Your task to perform on an android device: toggle location history Image 0: 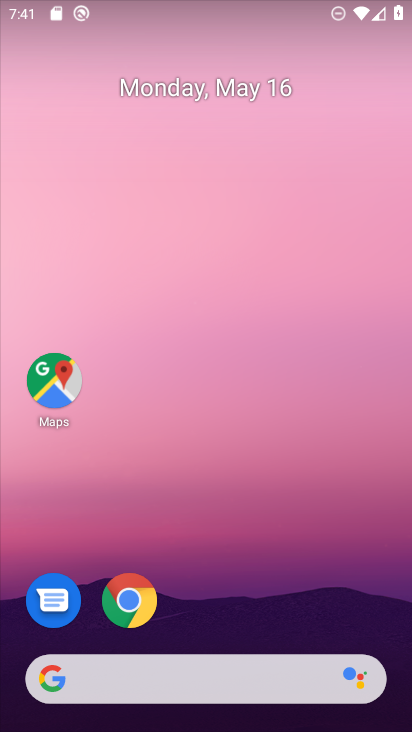
Step 0: drag from (153, 686) to (324, 194)
Your task to perform on an android device: toggle location history Image 1: 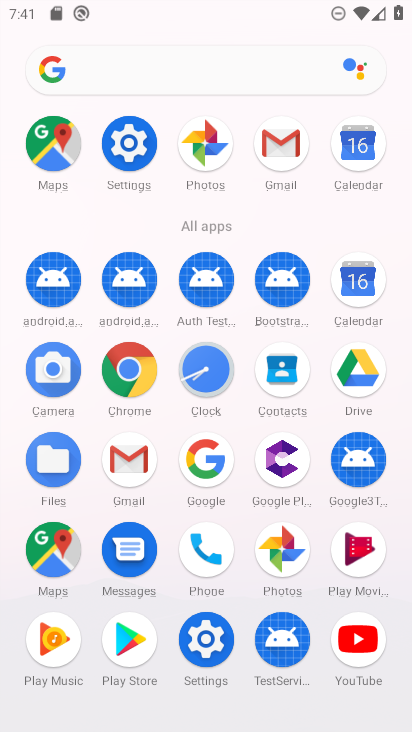
Step 1: click (130, 138)
Your task to perform on an android device: toggle location history Image 2: 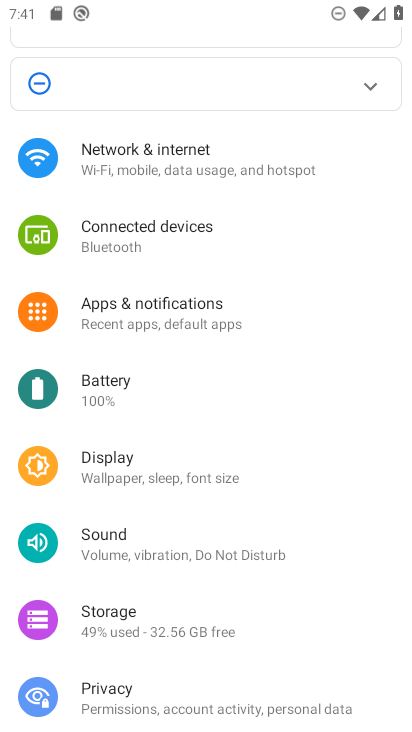
Step 2: drag from (292, 563) to (329, 123)
Your task to perform on an android device: toggle location history Image 3: 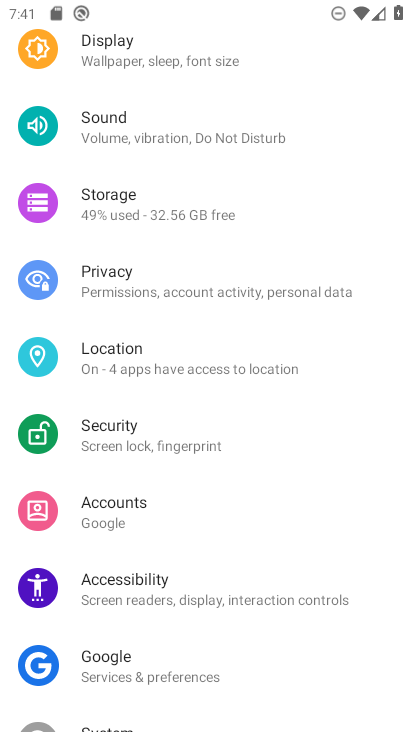
Step 3: click (148, 361)
Your task to perform on an android device: toggle location history Image 4: 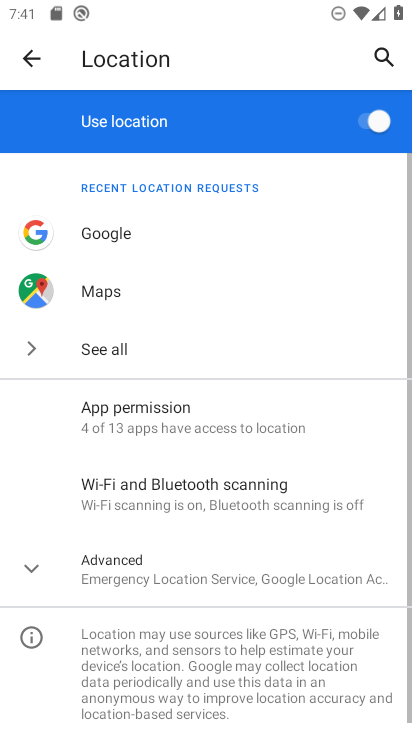
Step 4: click (102, 577)
Your task to perform on an android device: toggle location history Image 5: 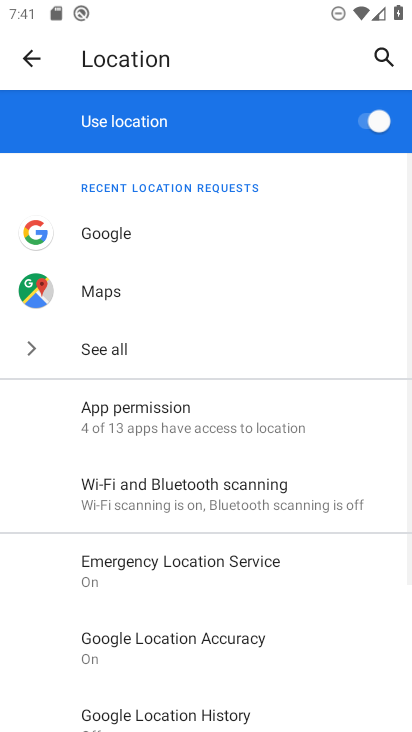
Step 5: drag from (340, 558) to (322, 258)
Your task to perform on an android device: toggle location history Image 6: 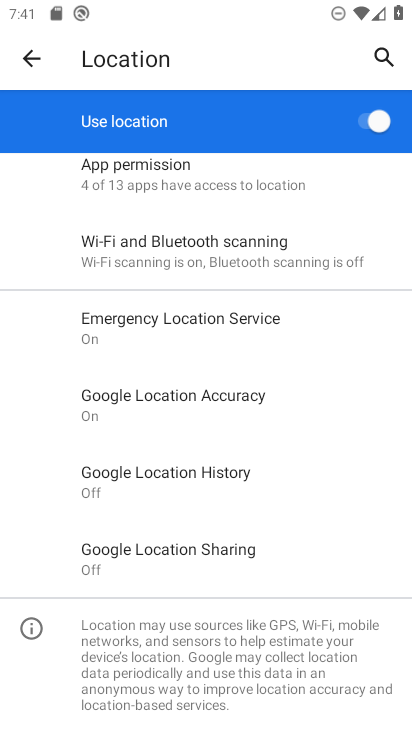
Step 6: click (201, 473)
Your task to perform on an android device: toggle location history Image 7: 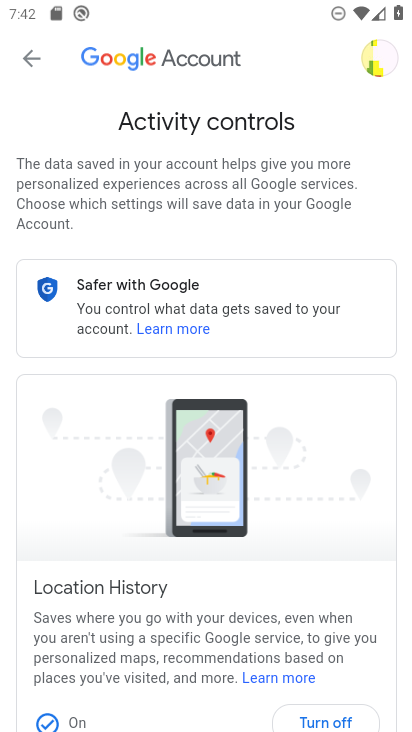
Step 7: drag from (233, 574) to (311, 252)
Your task to perform on an android device: toggle location history Image 8: 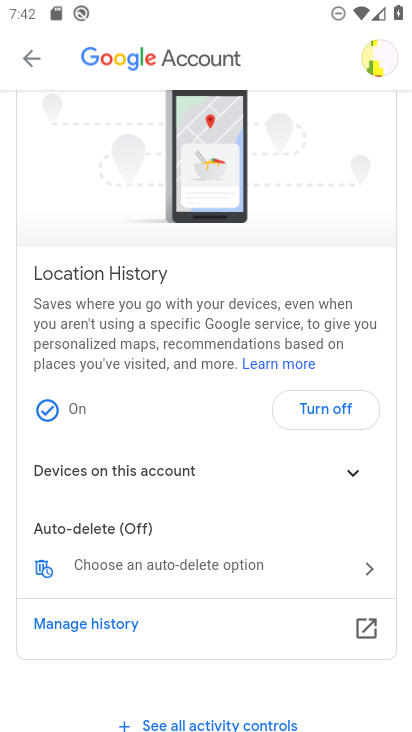
Step 8: click (331, 399)
Your task to perform on an android device: toggle location history Image 9: 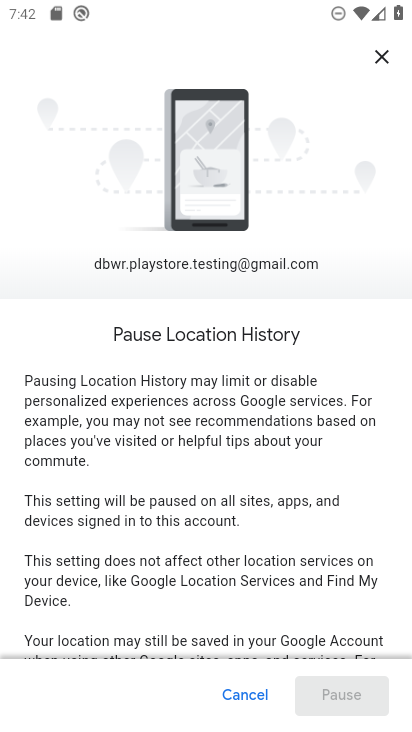
Step 9: drag from (248, 616) to (323, 302)
Your task to perform on an android device: toggle location history Image 10: 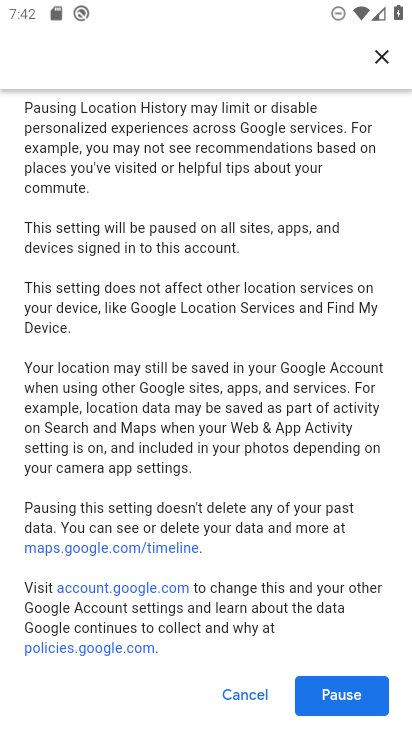
Step 10: click (340, 698)
Your task to perform on an android device: toggle location history Image 11: 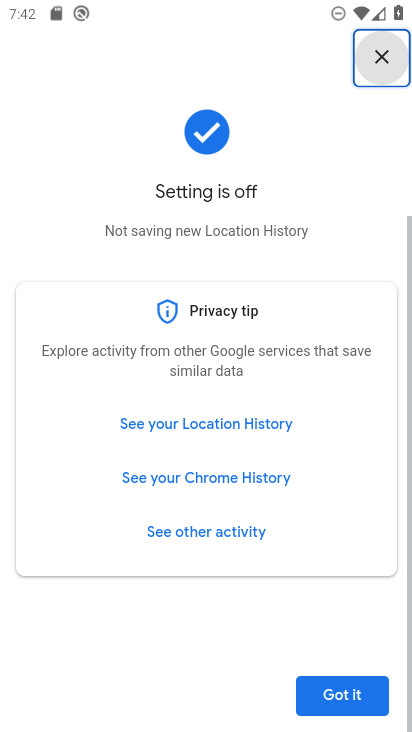
Step 11: click (336, 701)
Your task to perform on an android device: toggle location history Image 12: 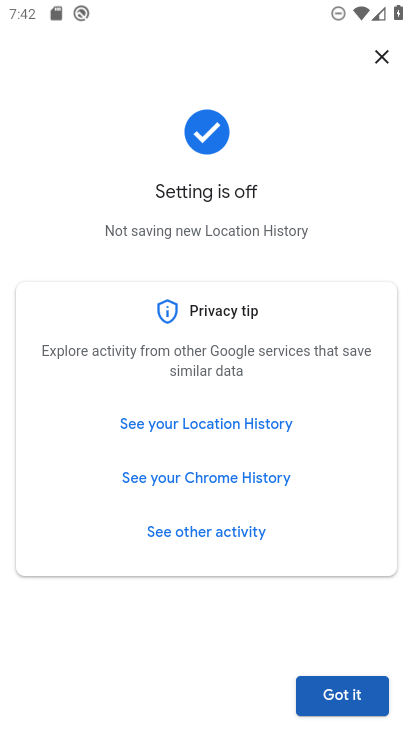
Step 12: click (344, 692)
Your task to perform on an android device: toggle location history Image 13: 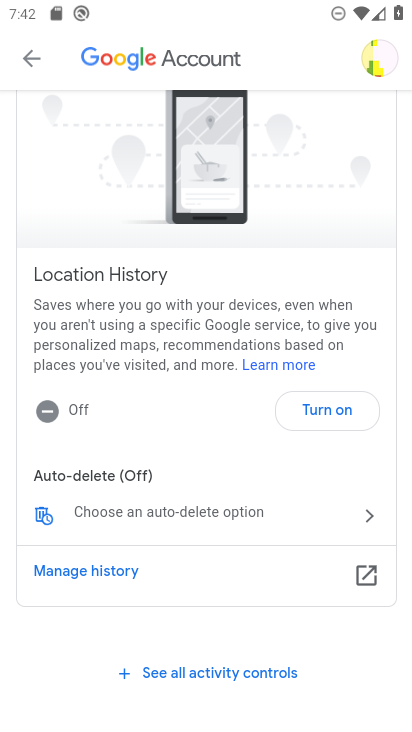
Step 13: task complete